Your task to perform on an android device: check data usage Image 0: 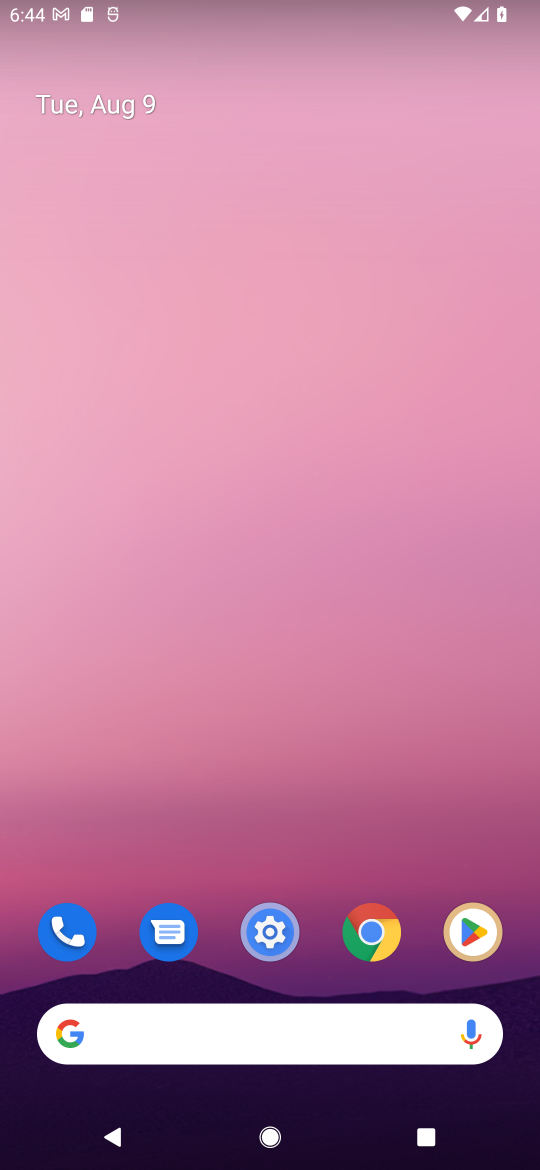
Step 0: drag from (231, 299) to (220, 35)
Your task to perform on an android device: check data usage Image 1: 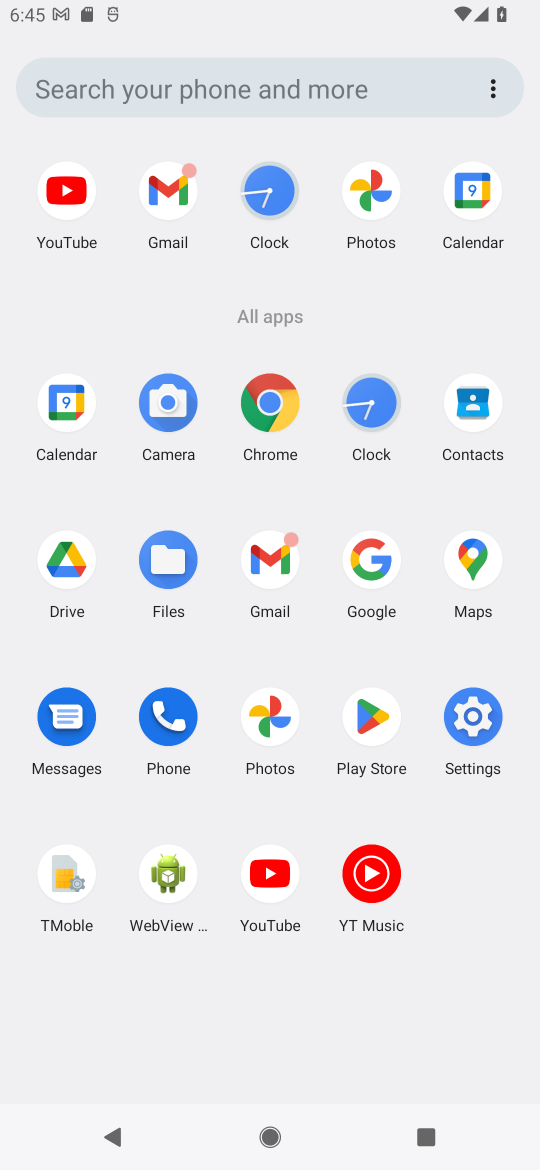
Step 1: click (490, 748)
Your task to perform on an android device: check data usage Image 2: 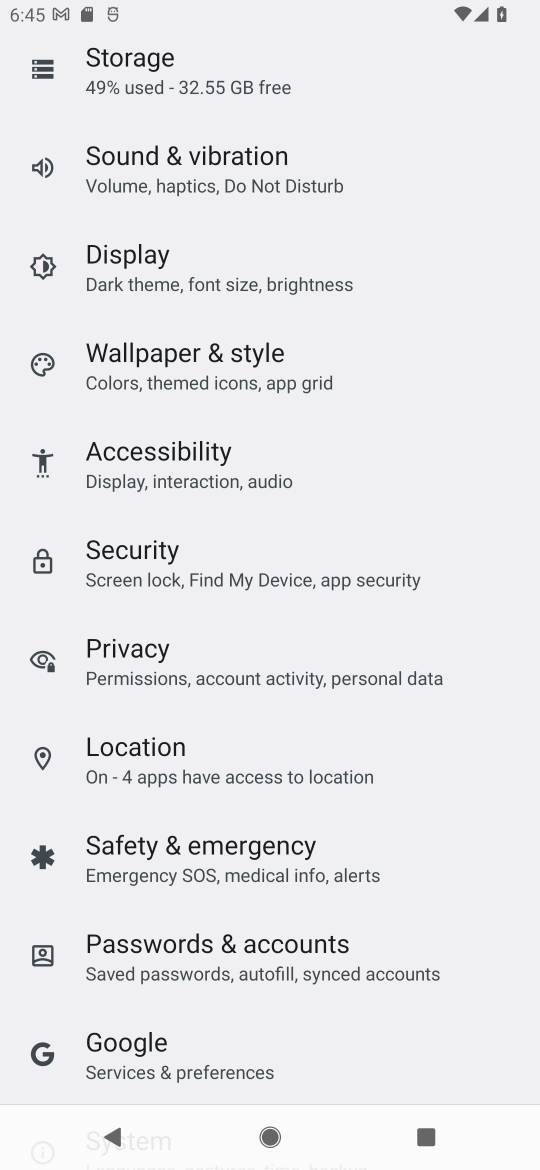
Step 2: drag from (199, 310) to (17, 567)
Your task to perform on an android device: check data usage Image 3: 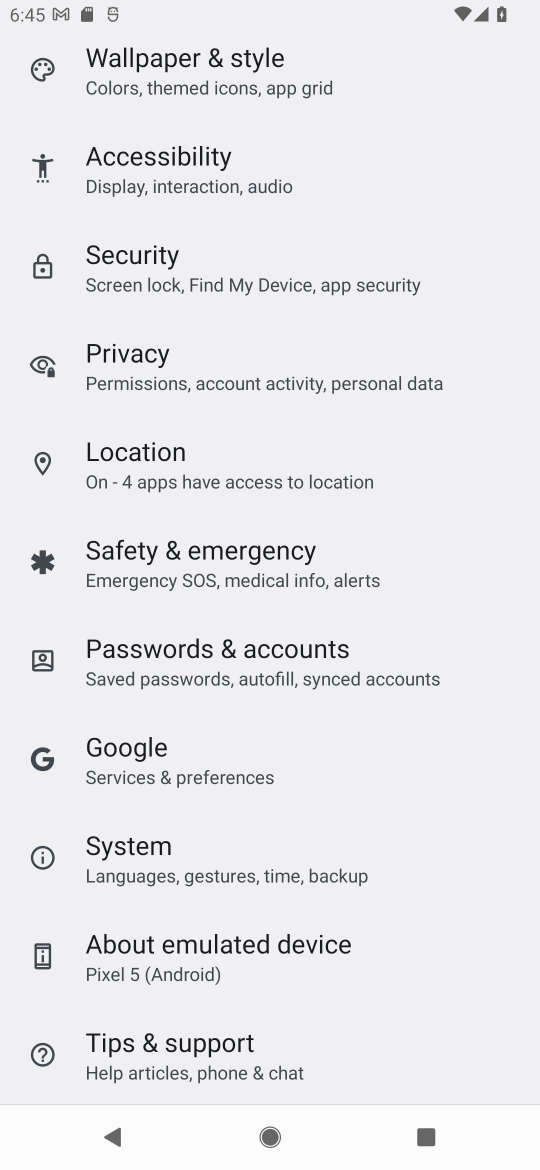
Step 3: drag from (184, 363) to (5, 888)
Your task to perform on an android device: check data usage Image 4: 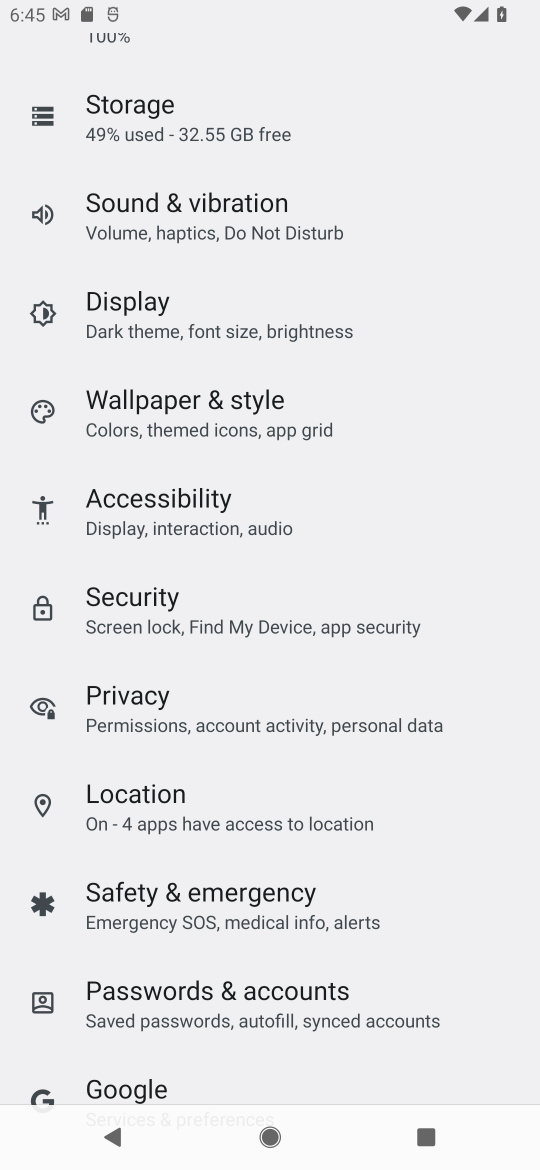
Step 4: drag from (319, 427) to (132, 1158)
Your task to perform on an android device: check data usage Image 5: 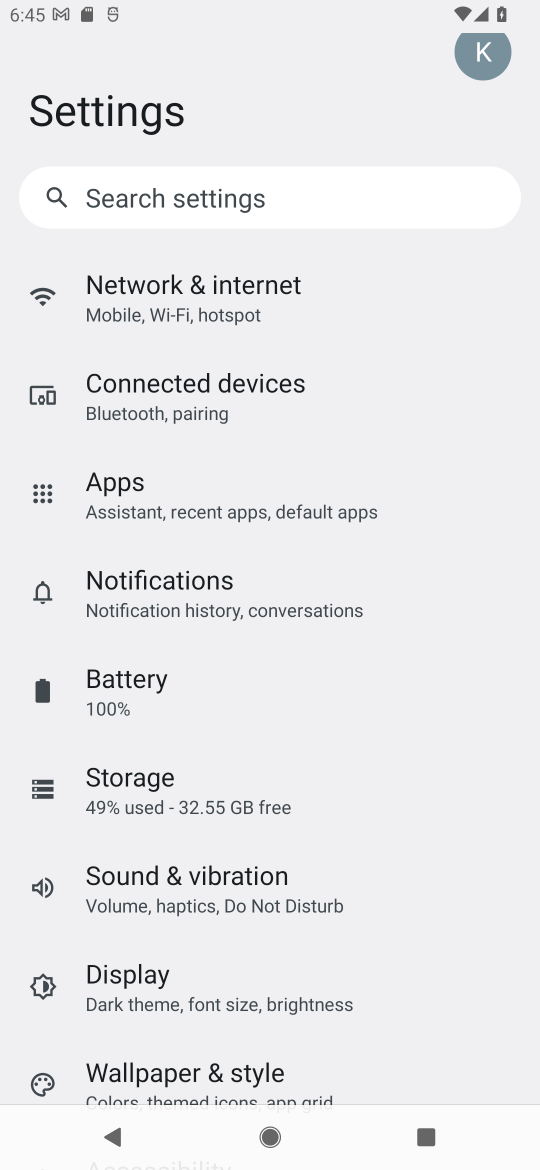
Step 5: click (192, 305)
Your task to perform on an android device: check data usage Image 6: 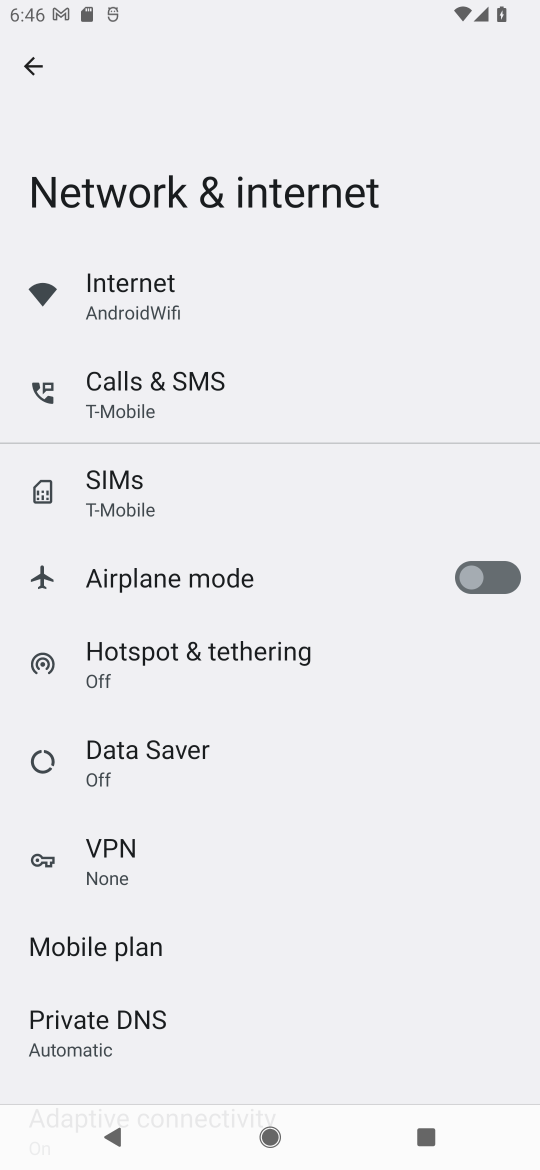
Step 6: click (180, 296)
Your task to perform on an android device: check data usage Image 7: 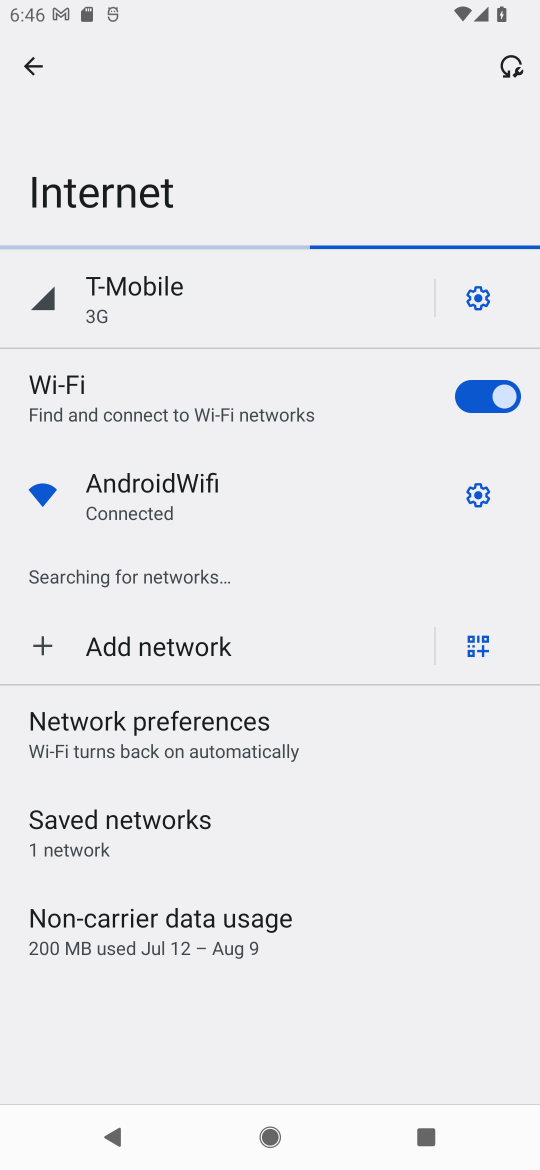
Step 7: click (219, 305)
Your task to perform on an android device: check data usage Image 8: 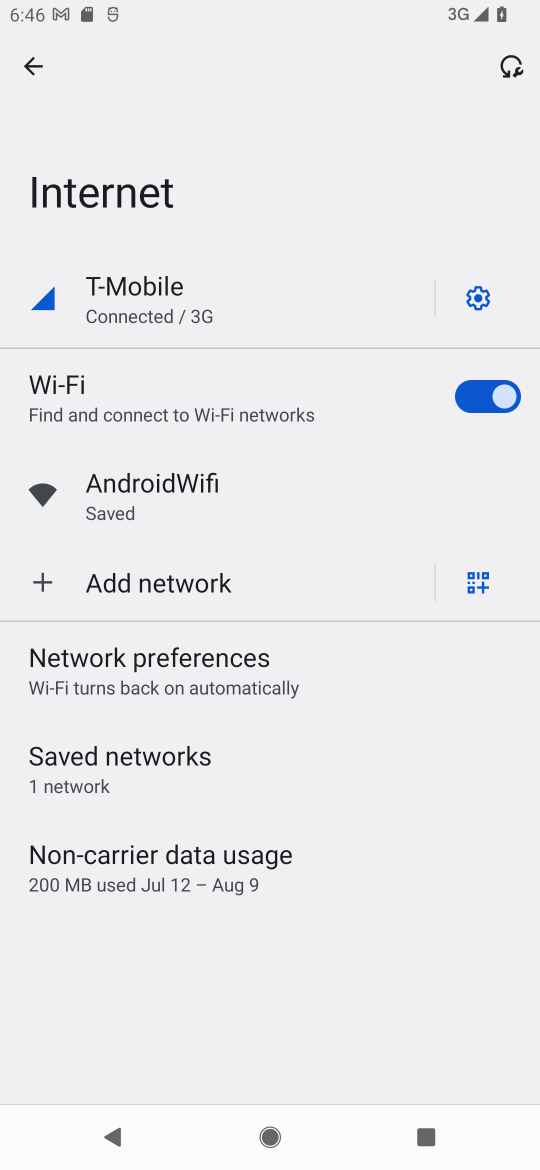
Step 8: click (214, 874)
Your task to perform on an android device: check data usage Image 9: 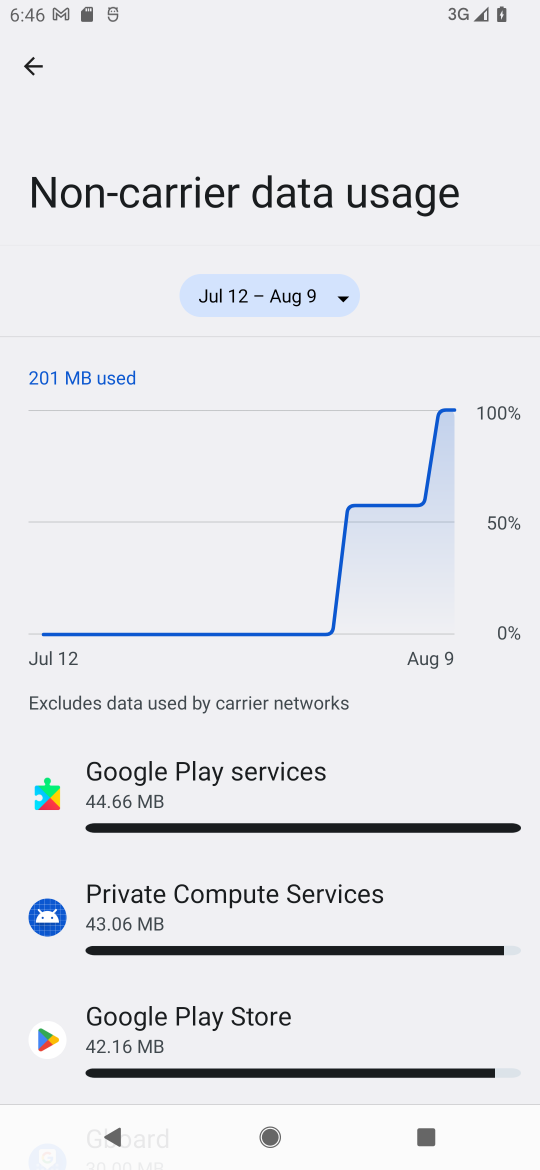
Step 9: task complete